Your task to perform on an android device: install app "Etsy: Buy & Sell Unique Items" Image 0: 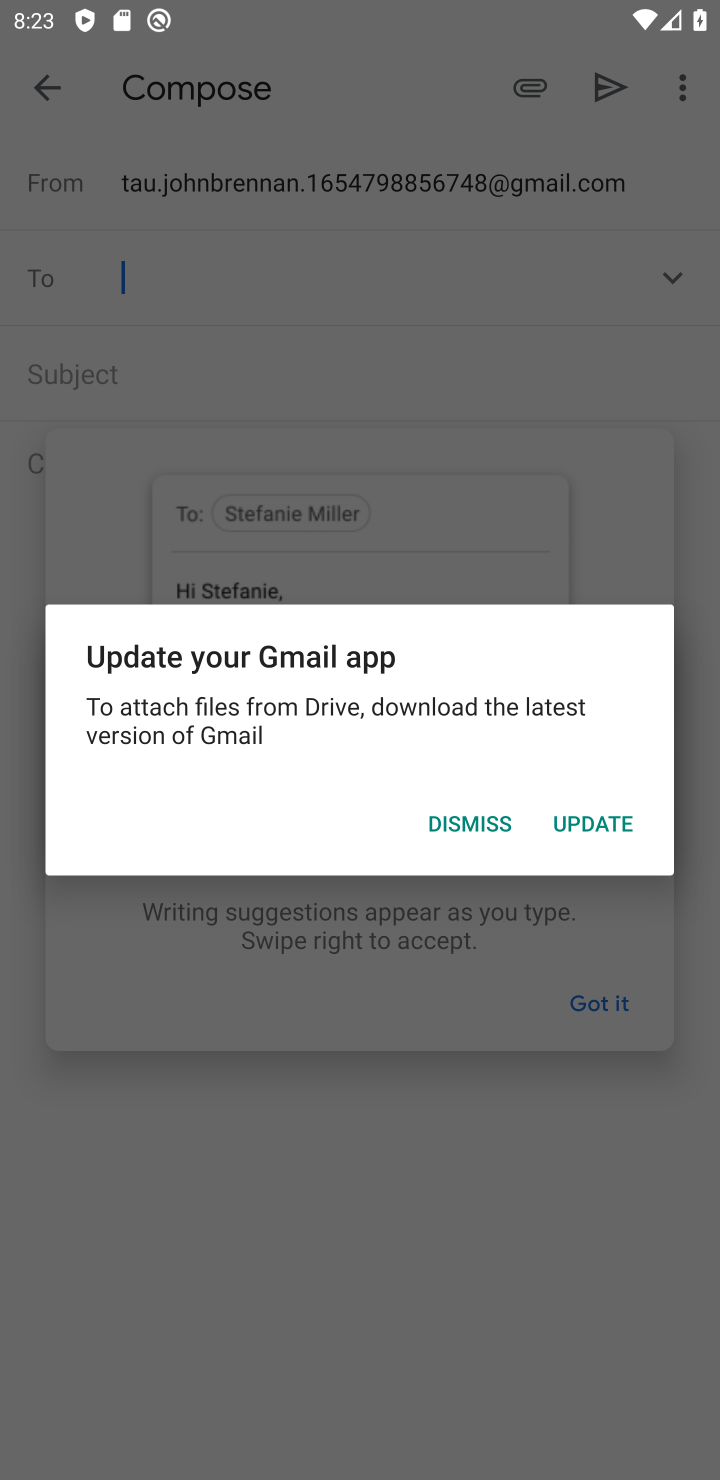
Step 0: press home button
Your task to perform on an android device: install app "Etsy: Buy & Sell Unique Items" Image 1: 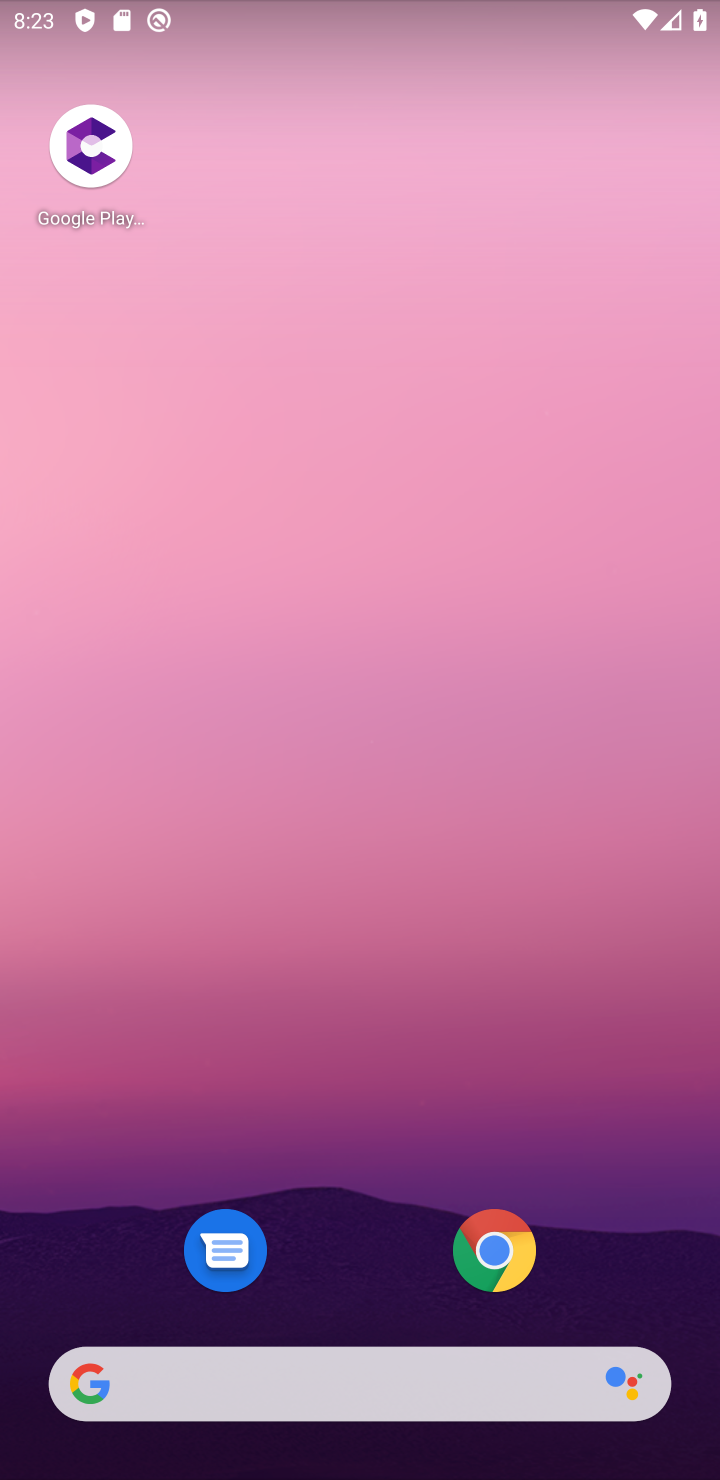
Step 1: drag from (678, 1214) to (605, 321)
Your task to perform on an android device: install app "Etsy: Buy & Sell Unique Items" Image 2: 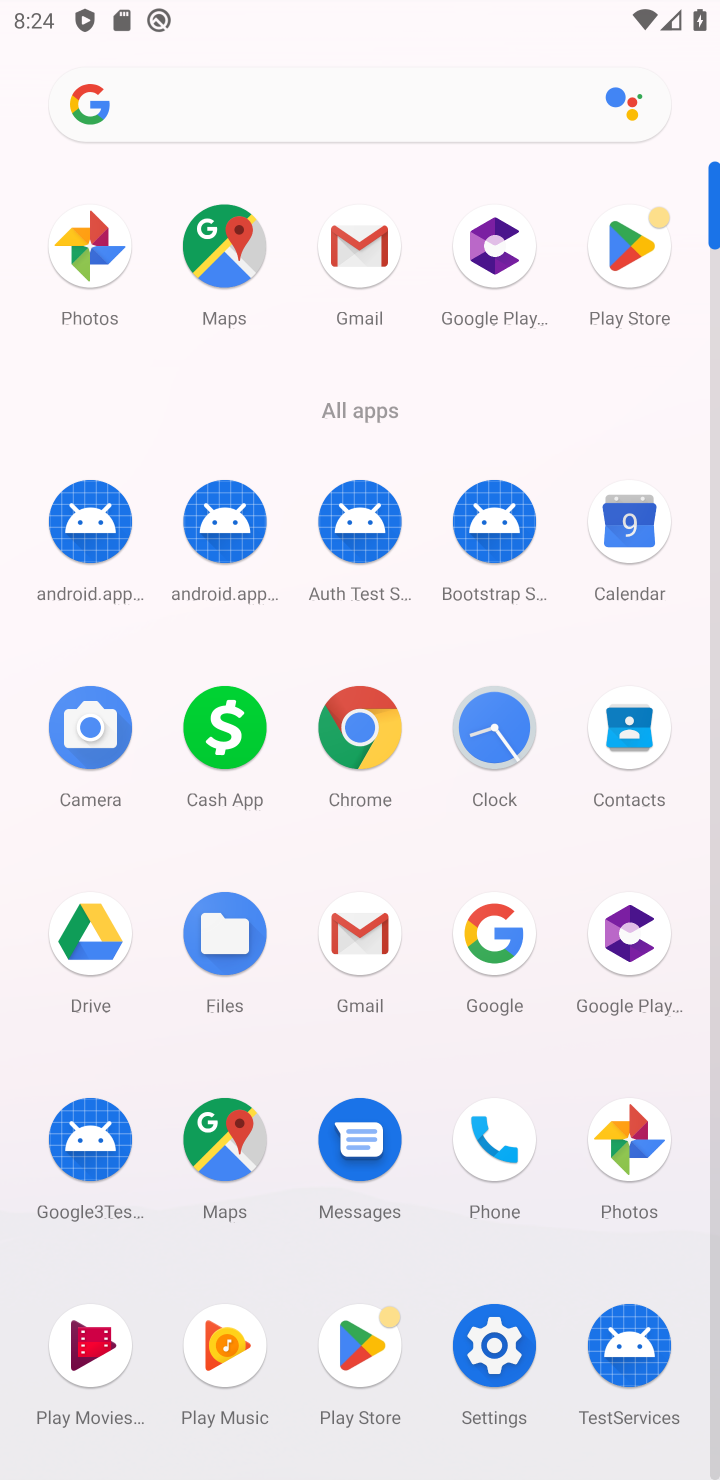
Step 2: click (349, 1336)
Your task to perform on an android device: install app "Etsy: Buy & Sell Unique Items" Image 3: 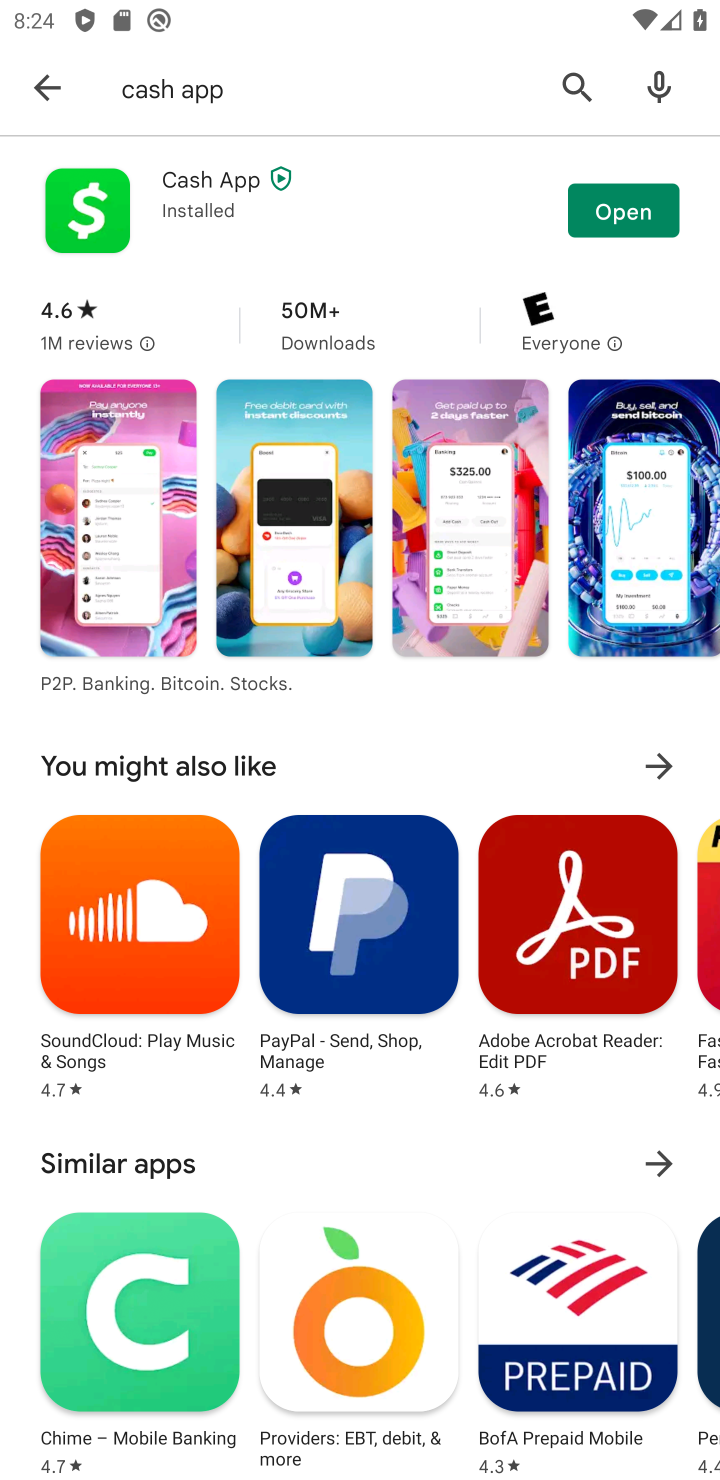
Step 3: click (408, 84)
Your task to perform on an android device: install app "Etsy: Buy & Sell Unique Items" Image 4: 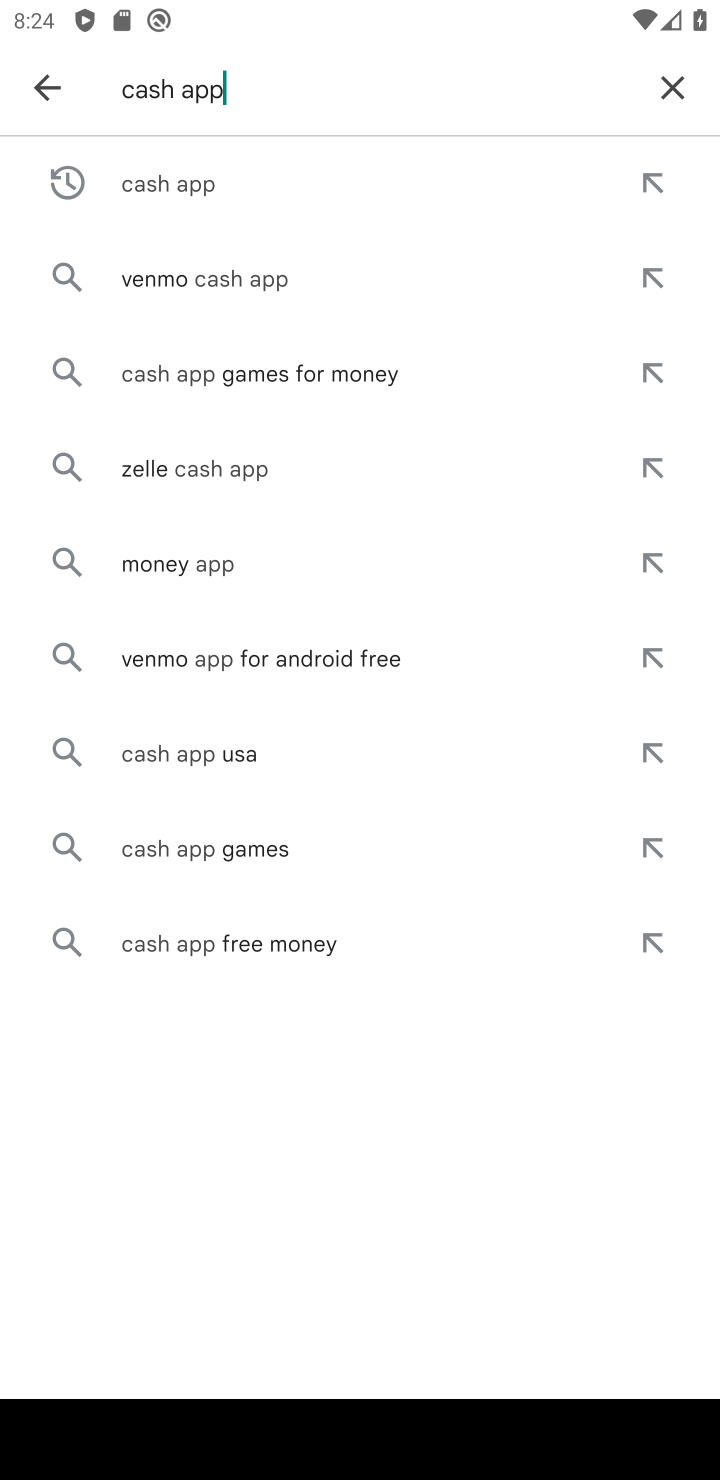
Step 4: click (668, 86)
Your task to perform on an android device: install app "Etsy: Buy & Sell Unique Items" Image 5: 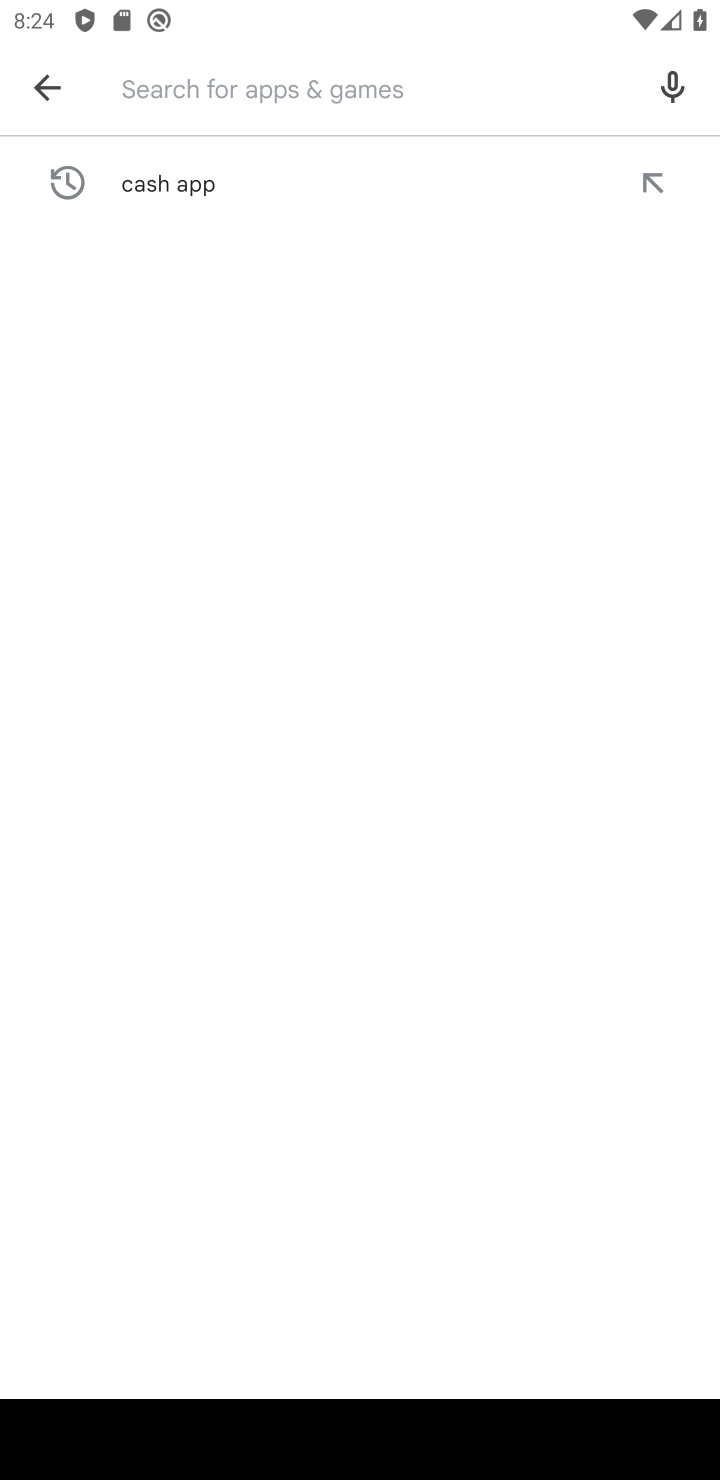
Step 5: type "Etsy: Buy & Sell Unique Items"
Your task to perform on an android device: install app "Etsy: Buy & Sell Unique Items" Image 6: 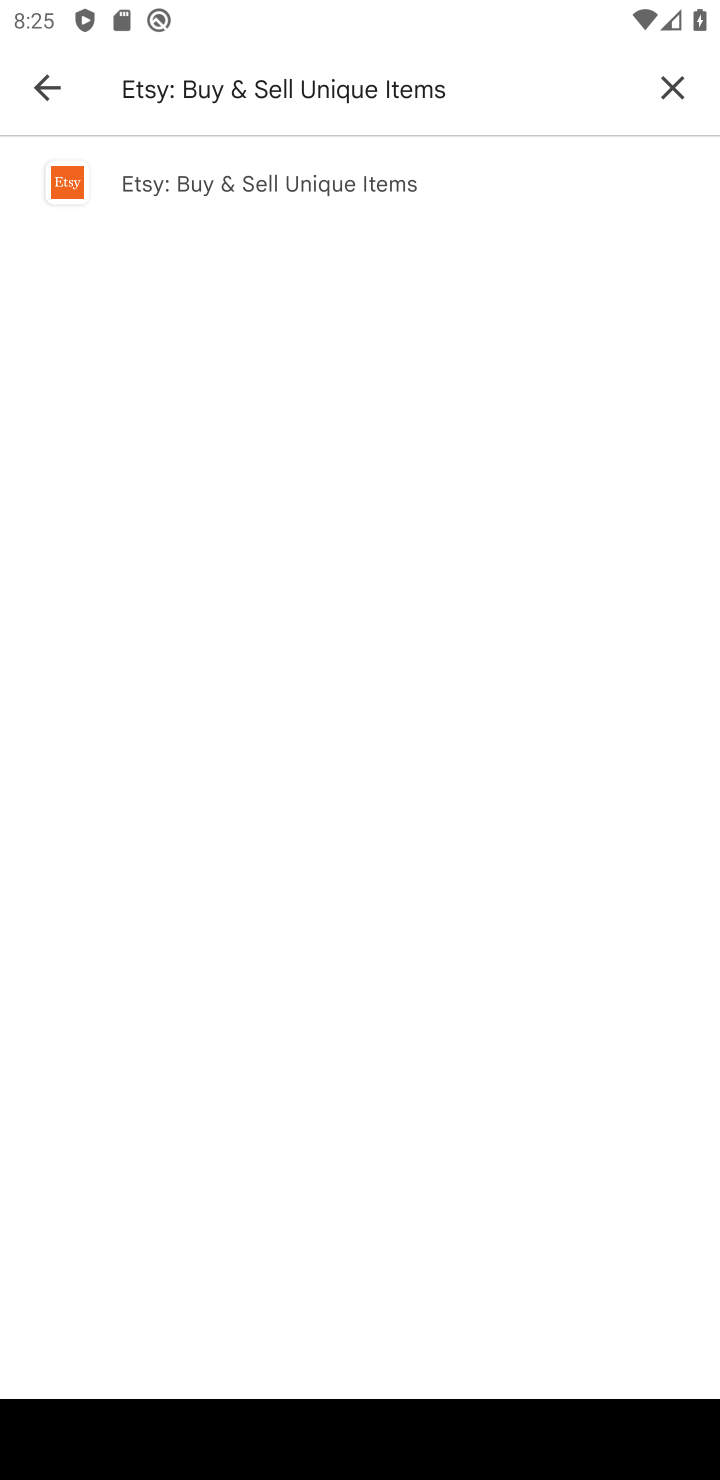
Step 6: click (329, 178)
Your task to perform on an android device: install app "Etsy: Buy & Sell Unique Items" Image 7: 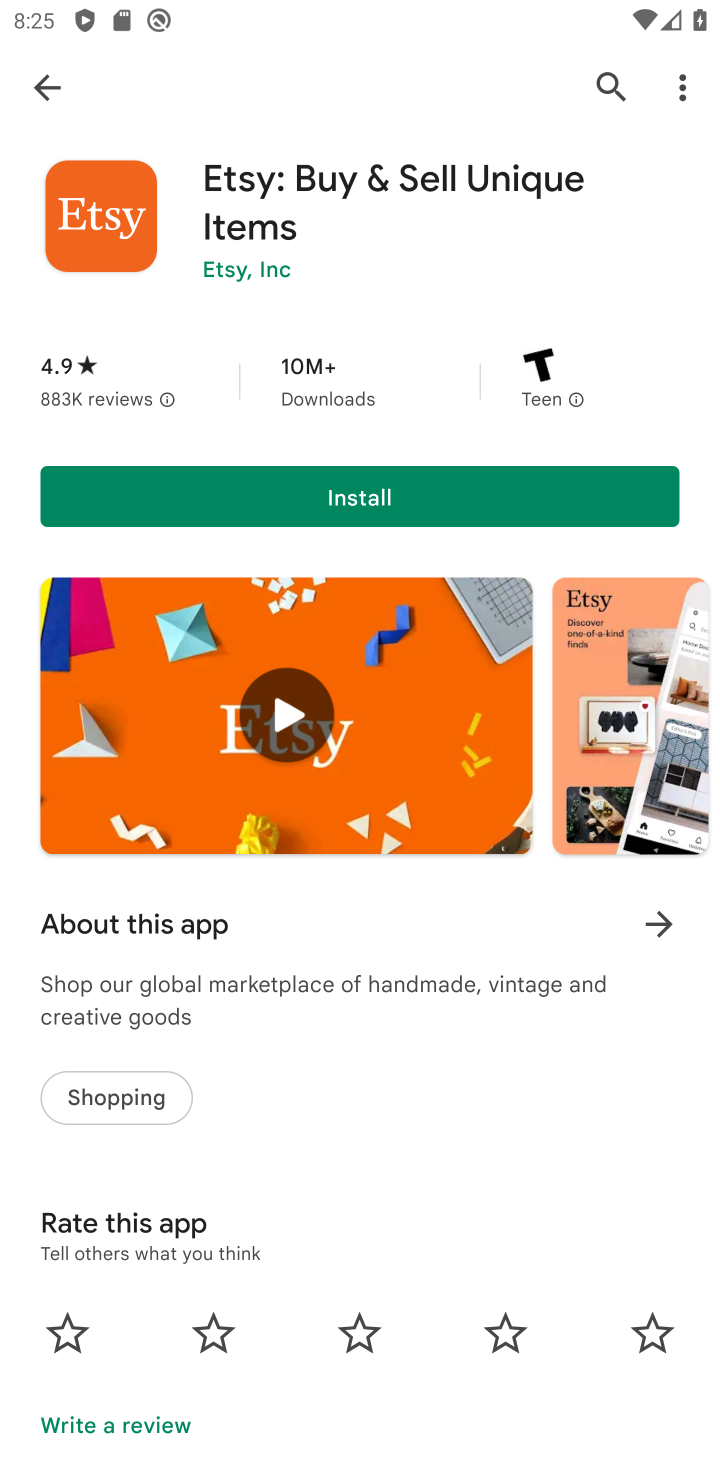
Step 7: click (482, 488)
Your task to perform on an android device: install app "Etsy: Buy & Sell Unique Items" Image 8: 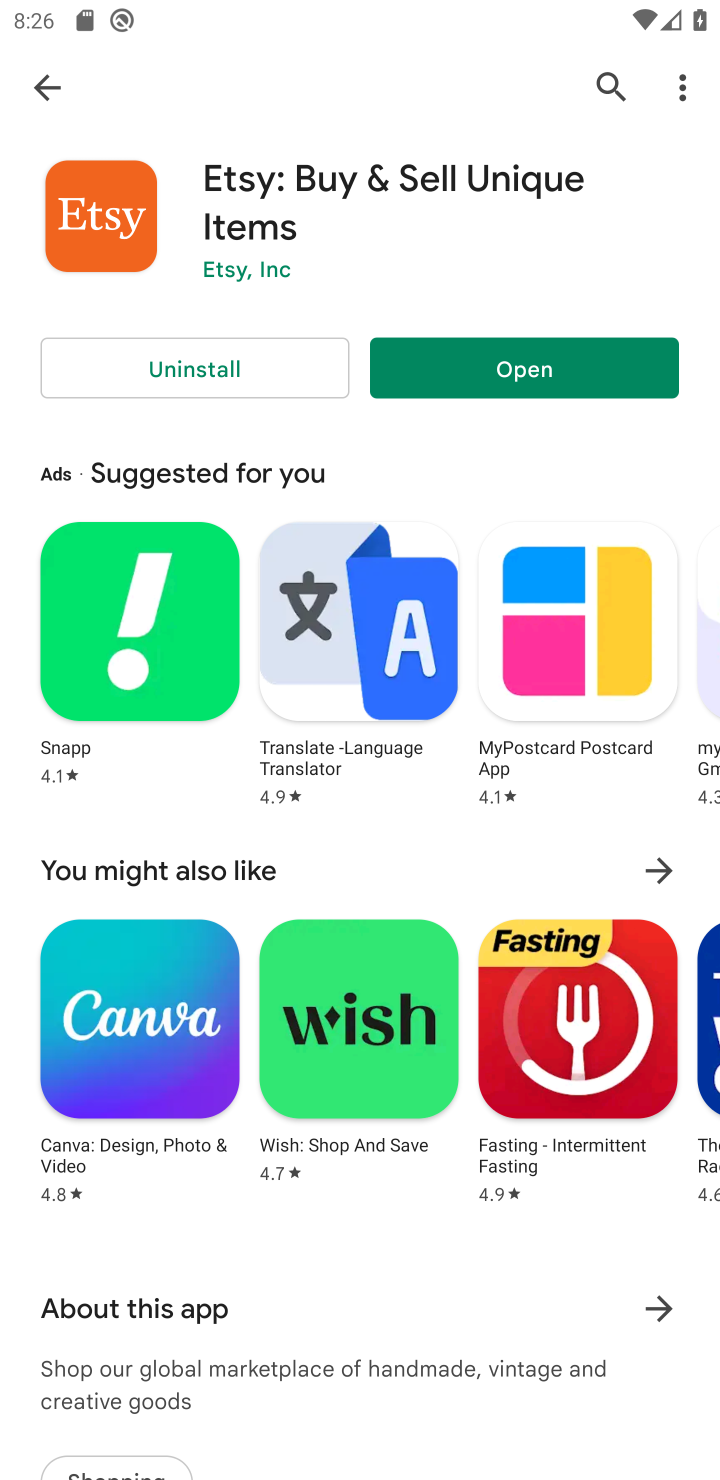
Step 8: task complete